Your task to perform on an android device: Open Wikipedia Image 0: 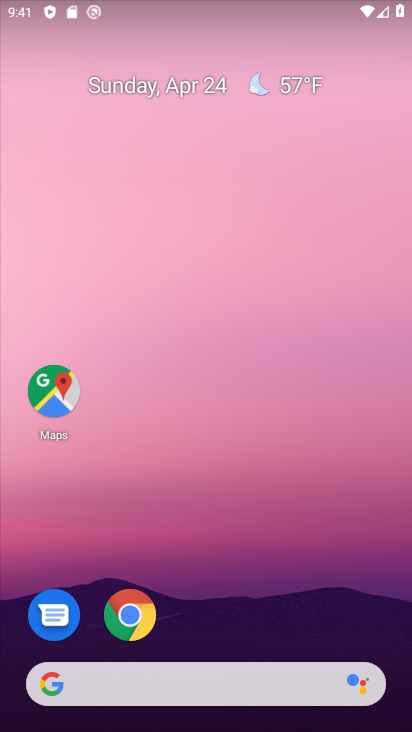
Step 0: click (134, 615)
Your task to perform on an android device: Open Wikipedia Image 1: 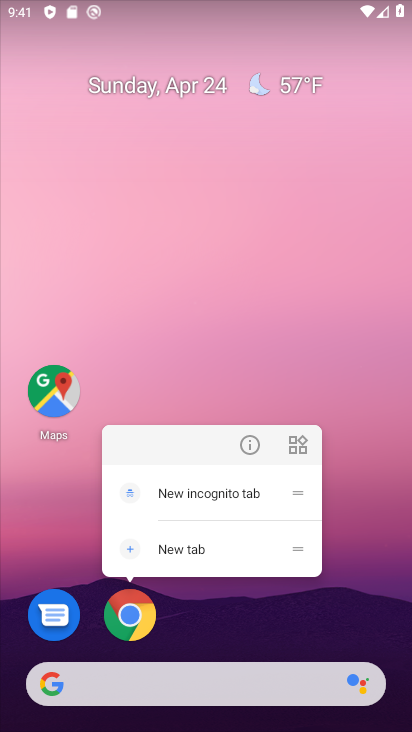
Step 1: click (134, 615)
Your task to perform on an android device: Open Wikipedia Image 2: 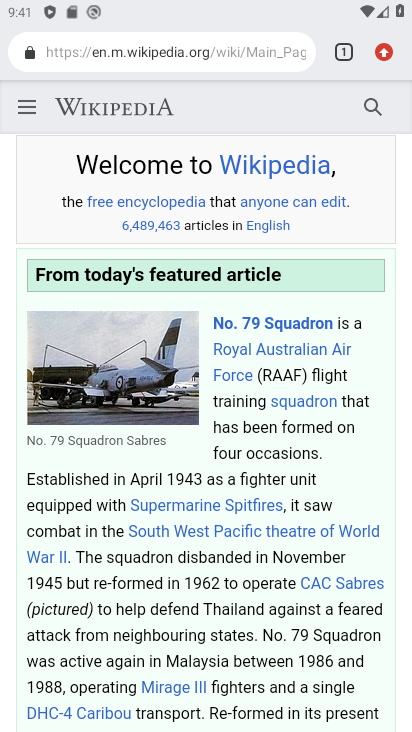
Step 2: task complete